Your task to perform on an android device: What is the news today? Image 0: 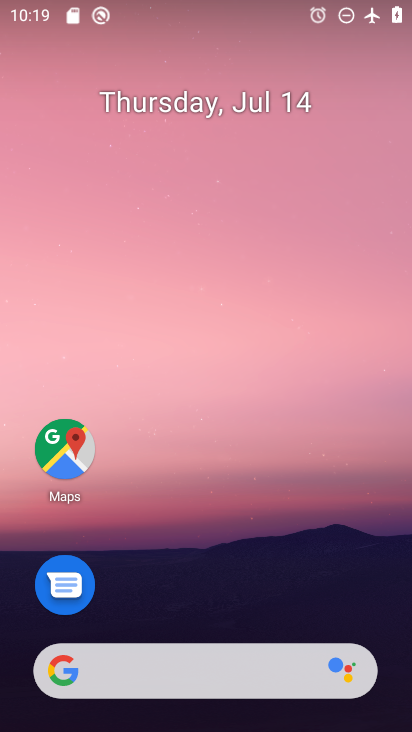
Step 0: click (186, 646)
Your task to perform on an android device: What is the news today? Image 1: 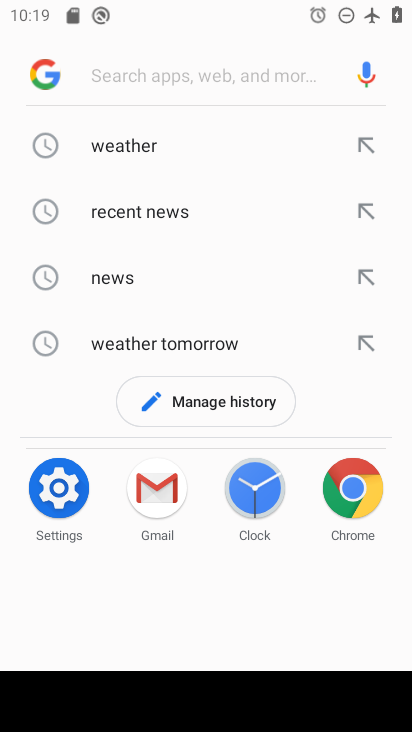
Step 1: click (109, 215)
Your task to perform on an android device: What is the news today? Image 2: 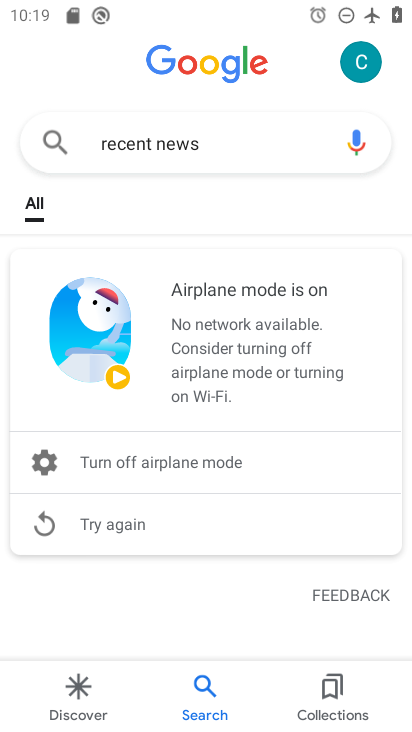
Step 2: task complete